Your task to perform on an android device: Open sound settings Image 0: 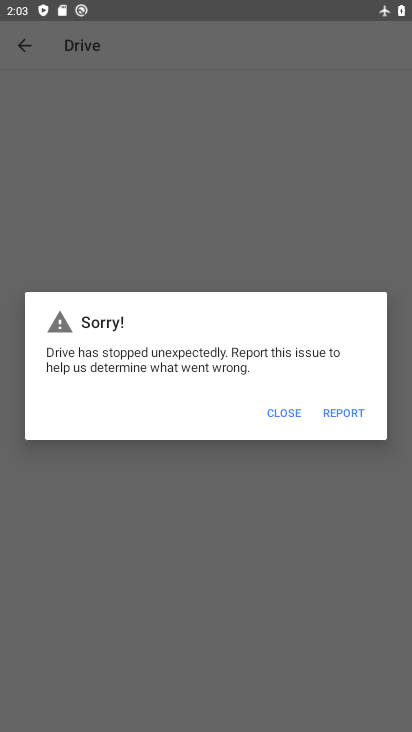
Step 0: press home button
Your task to perform on an android device: Open sound settings Image 1: 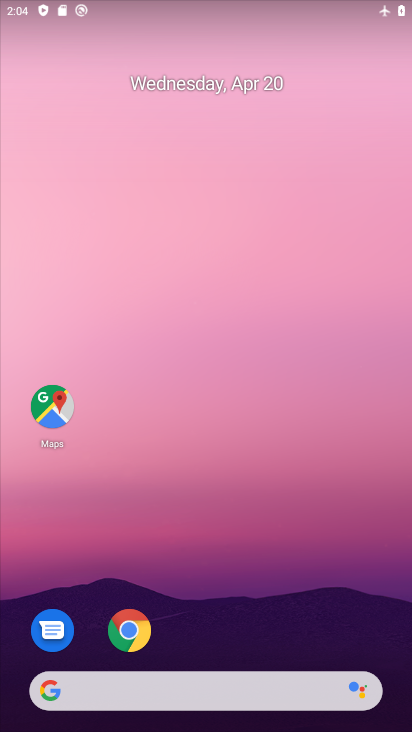
Step 1: drag from (326, 525) to (274, 172)
Your task to perform on an android device: Open sound settings Image 2: 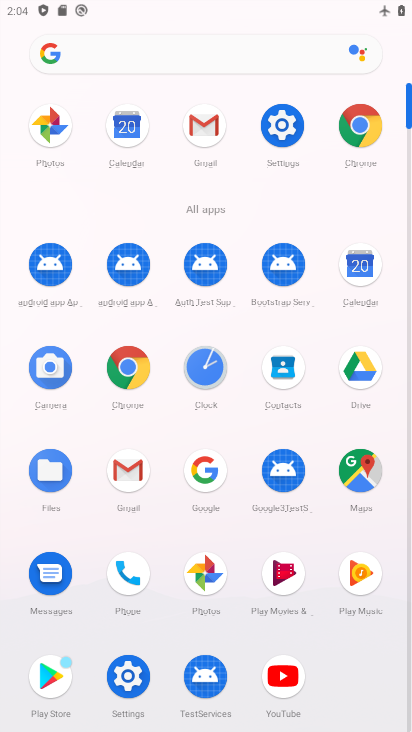
Step 2: click (276, 155)
Your task to perform on an android device: Open sound settings Image 3: 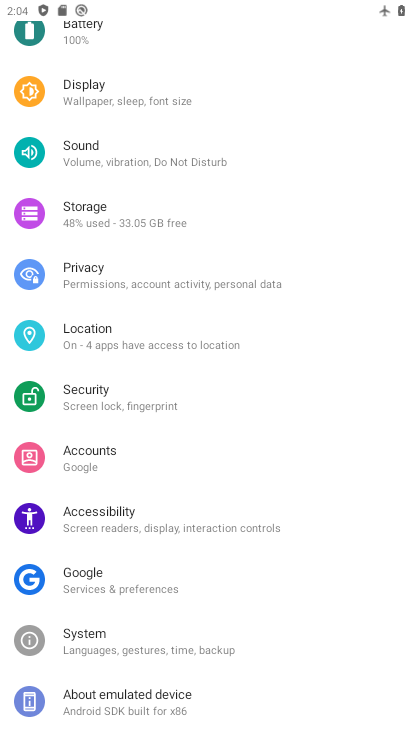
Step 3: click (267, 158)
Your task to perform on an android device: Open sound settings Image 4: 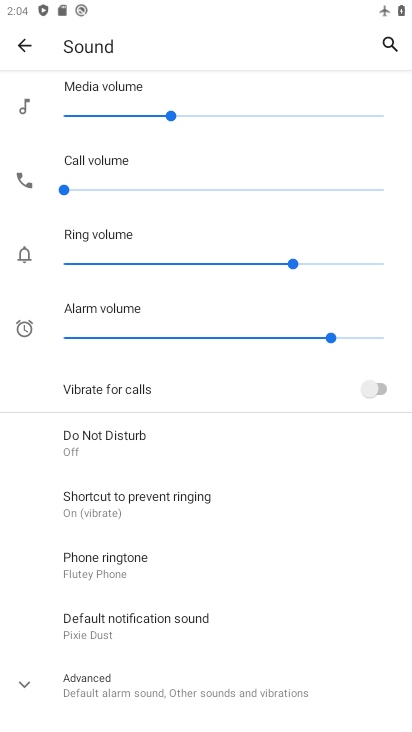
Step 4: task complete